Your task to perform on an android device: Go to location settings Image 0: 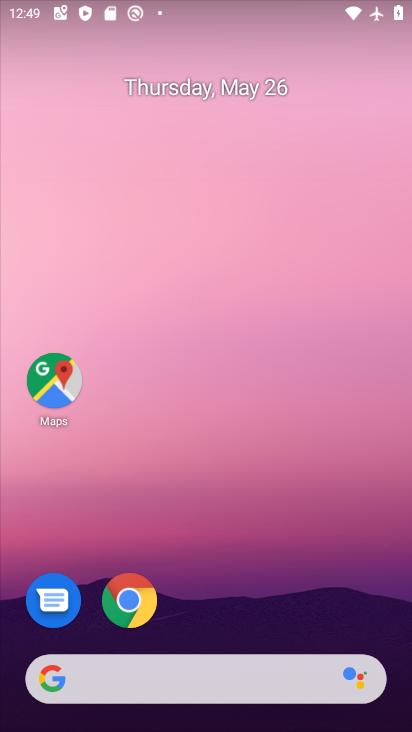
Step 0: drag from (227, 607) to (225, 189)
Your task to perform on an android device: Go to location settings Image 1: 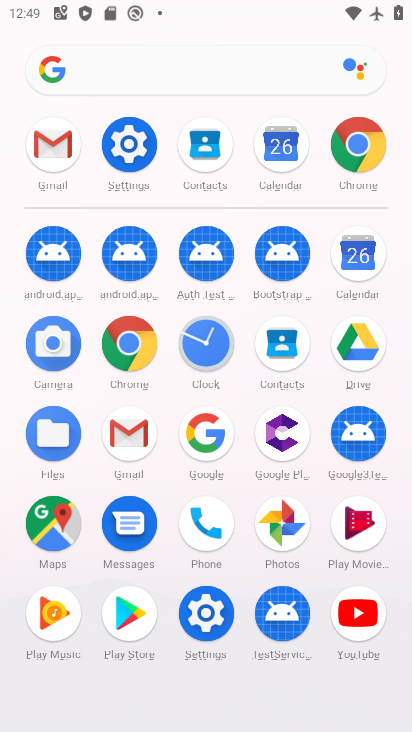
Step 1: click (137, 133)
Your task to perform on an android device: Go to location settings Image 2: 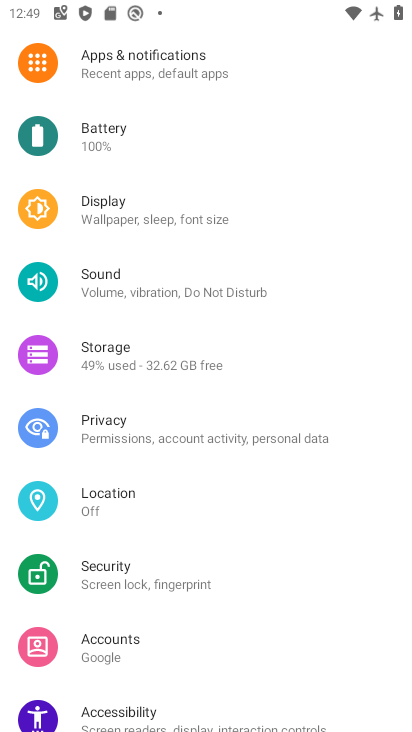
Step 2: click (89, 502)
Your task to perform on an android device: Go to location settings Image 3: 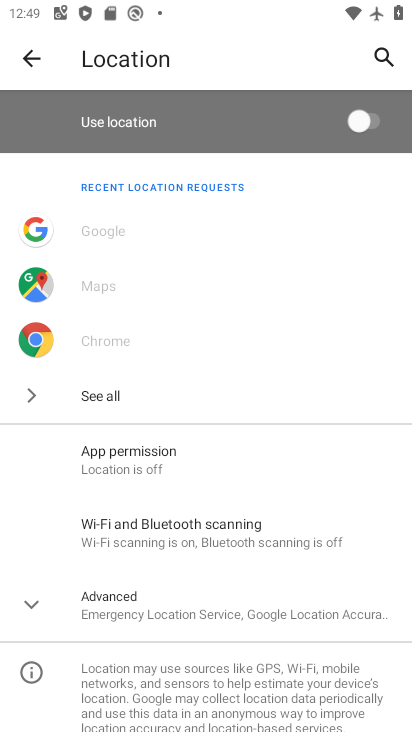
Step 3: task complete